Your task to perform on an android device: open sync settings in chrome Image 0: 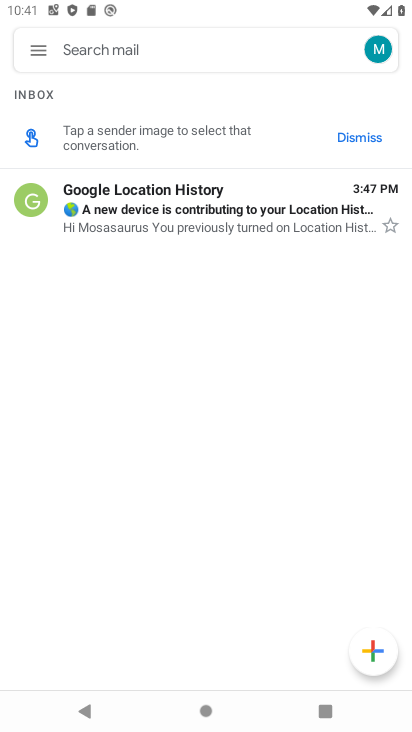
Step 0: press home button
Your task to perform on an android device: open sync settings in chrome Image 1: 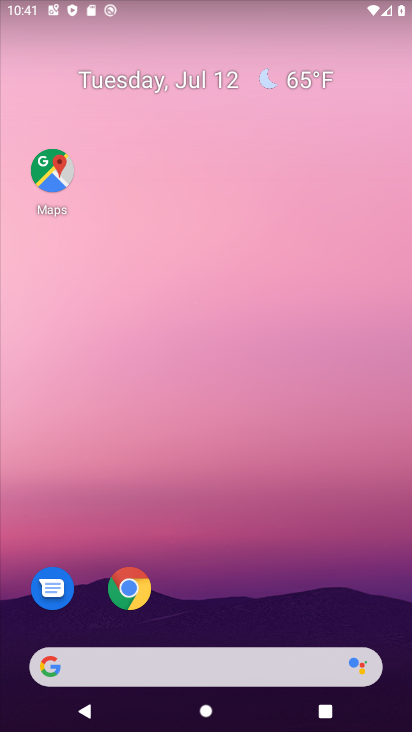
Step 1: click (121, 597)
Your task to perform on an android device: open sync settings in chrome Image 2: 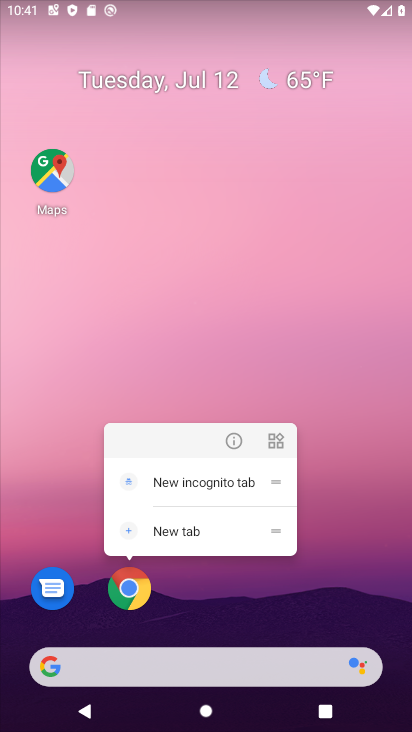
Step 2: click (130, 595)
Your task to perform on an android device: open sync settings in chrome Image 3: 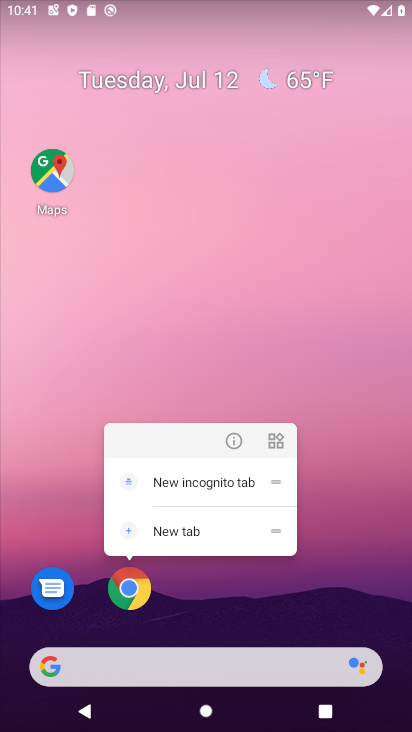
Step 3: click (131, 593)
Your task to perform on an android device: open sync settings in chrome Image 4: 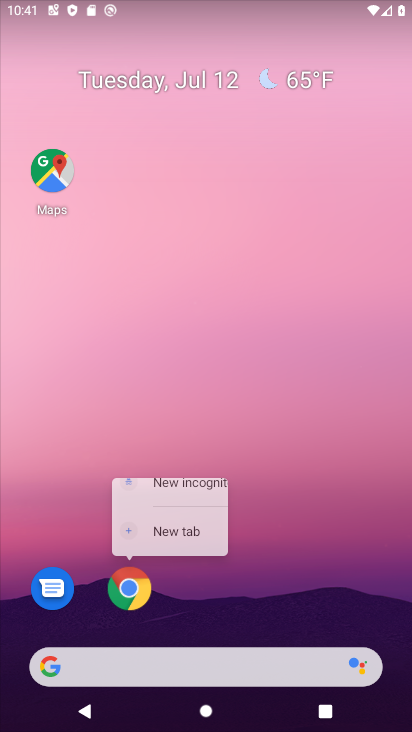
Step 4: click (131, 593)
Your task to perform on an android device: open sync settings in chrome Image 5: 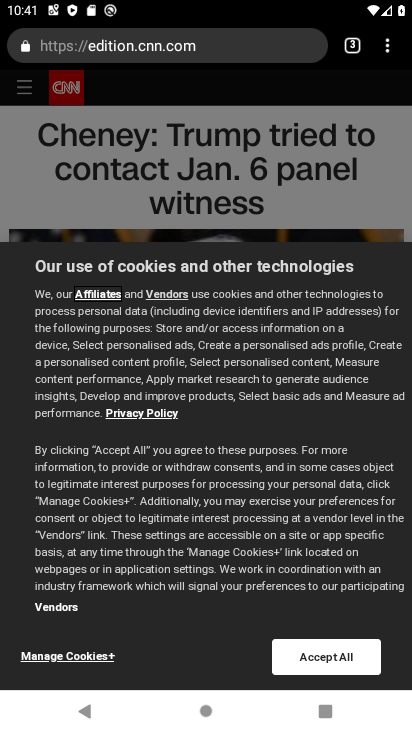
Step 5: click (392, 42)
Your task to perform on an android device: open sync settings in chrome Image 6: 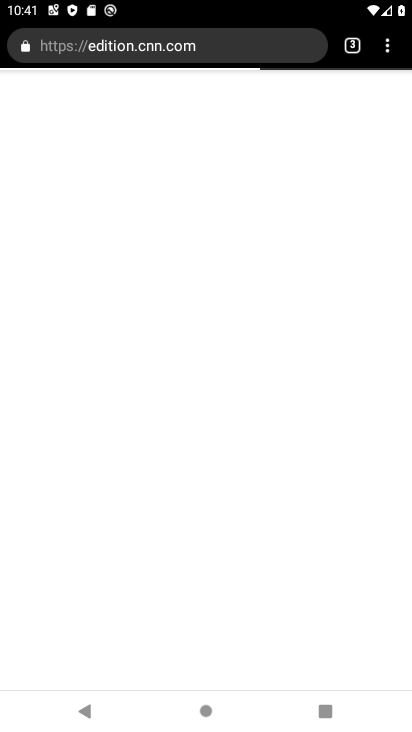
Step 6: click (388, 45)
Your task to perform on an android device: open sync settings in chrome Image 7: 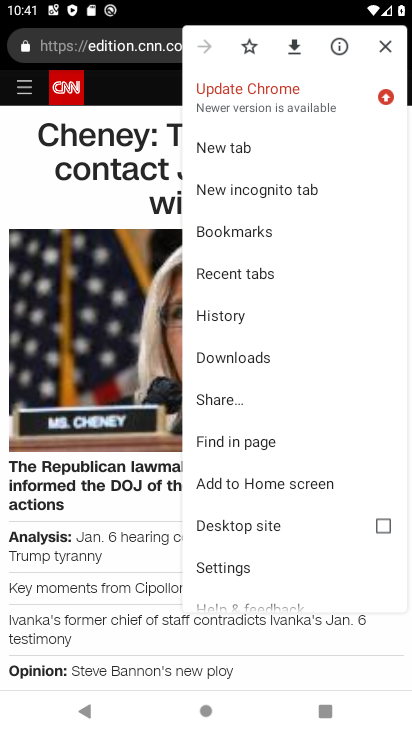
Step 7: click (226, 571)
Your task to perform on an android device: open sync settings in chrome Image 8: 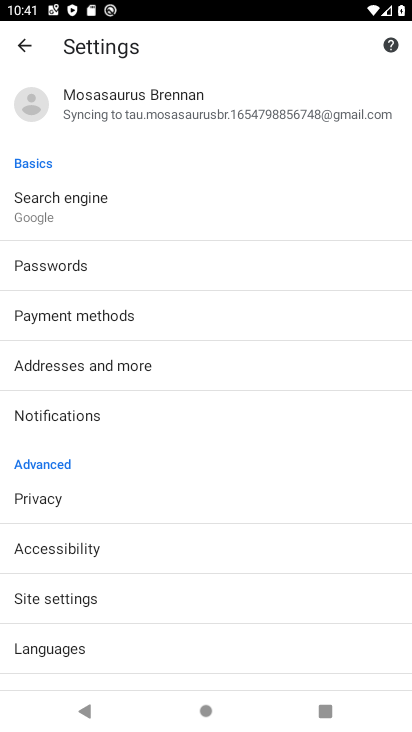
Step 8: click (24, 597)
Your task to perform on an android device: open sync settings in chrome Image 9: 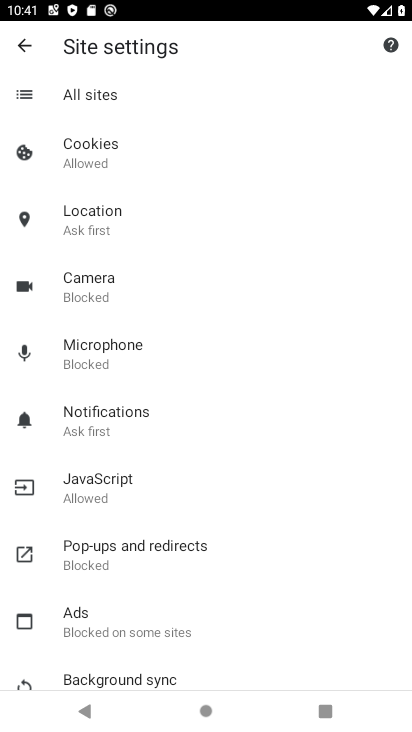
Step 9: drag from (276, 638) to (276, 278)
Your task to perform on an android device: open sync settings in chrome Image 10: 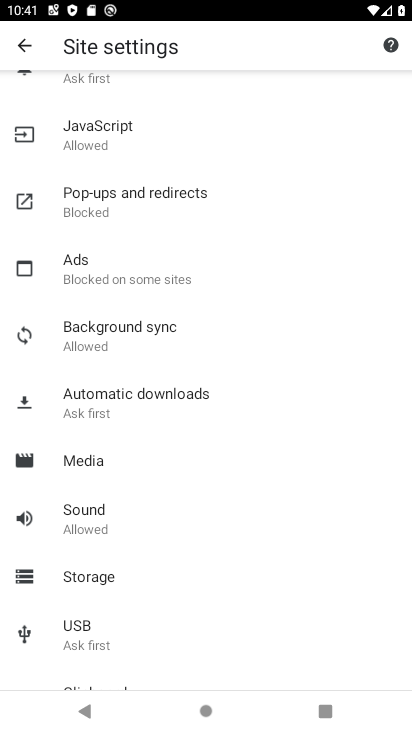
Step 10: click (103, 330)
Your task to perform on an android device: open sync settings in chrome Image 11: 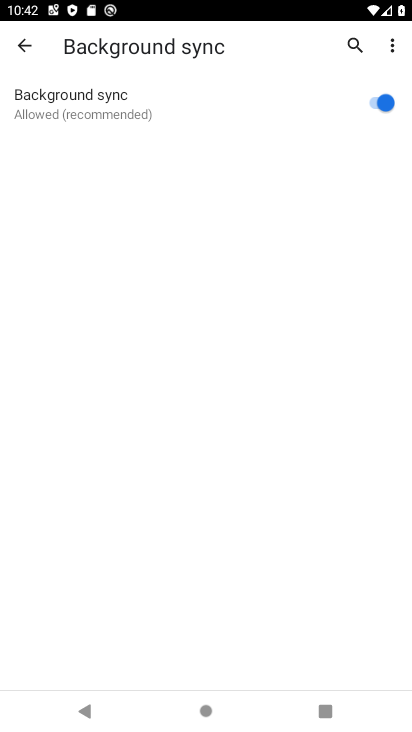
Step 11: task complete